Your task to perform on an android device: make emails show in primary in the gmail app Image 0: 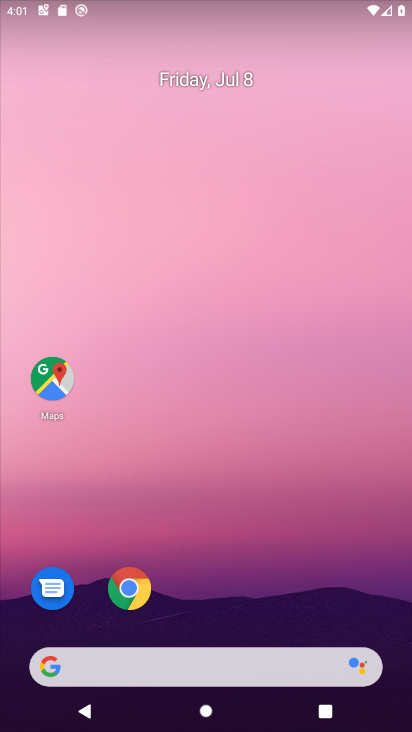
Step 0: drag from (230, 614) to (229, 1)
Your task to perform on an android device: make emails show in primary in the gmail app Image 1: 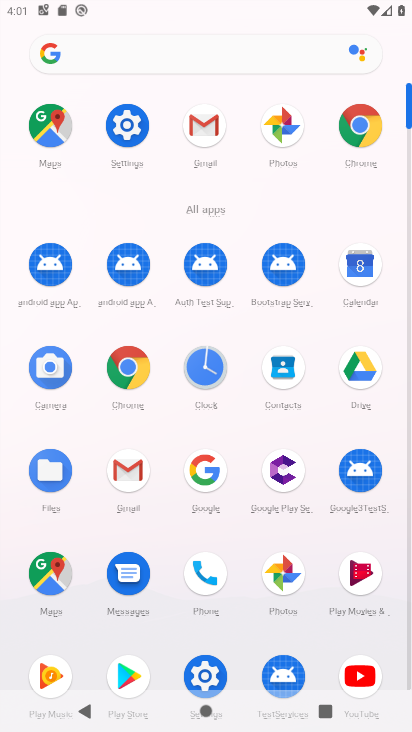
Step 1: click (130, 481)
Your task to perform on an android device: make emails show in primary in the gmail app Image 2: 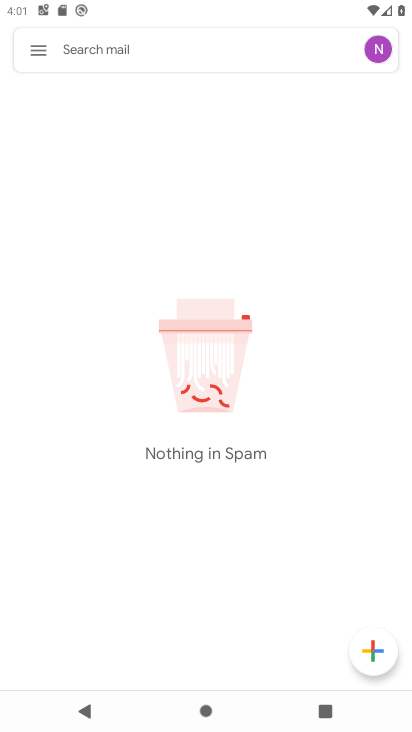
Step 2: click (42, 40)
Your task to perform on an android device: make emails show in primary in the gmail app Image 3: 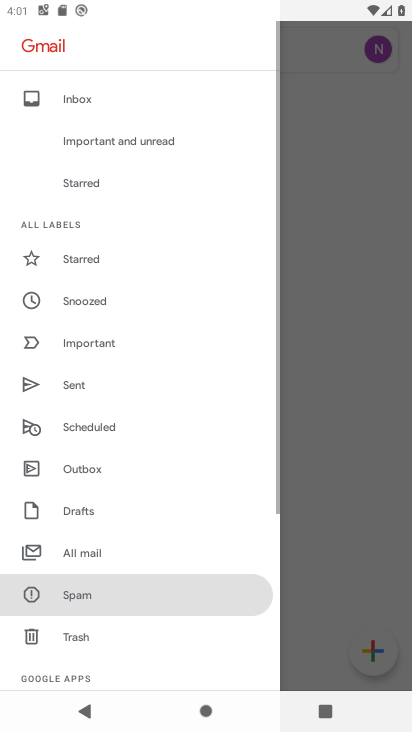
Step 3: drag from (121, 627) to (121, 143)
Your task to perform on an android device: make emails show in primary in the gmail app Image 4: 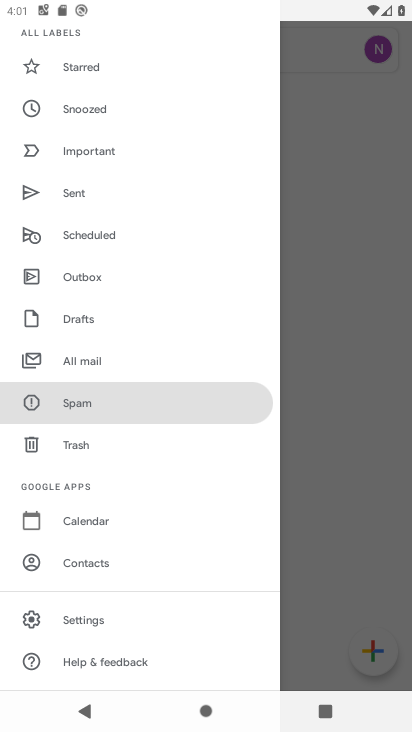
Step 4: click (74, 625)
Your task to perform on an android device: make emails show in primary in the gmail app Image 5: 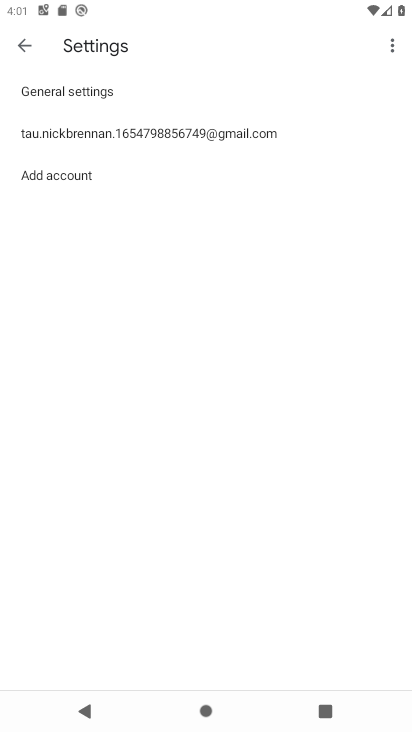
Step 5: click (90, 129)
Your task to perform on an android device: make emails show in primary in the gmail app Image 6: 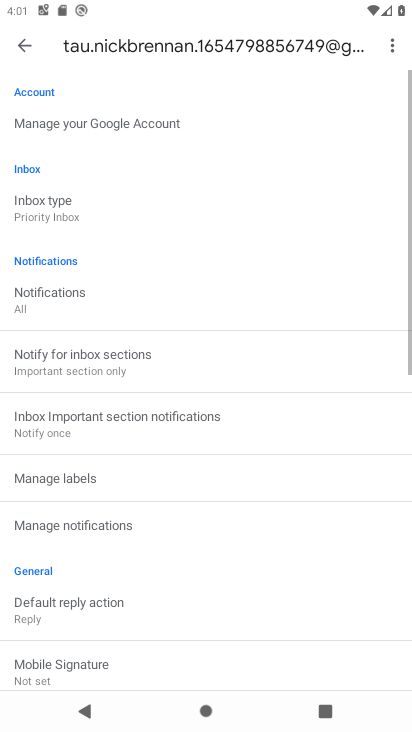
Step 6: click (62, 216)
Your task to perform on an android device: make emails show in primary in the gmail app Image 7: 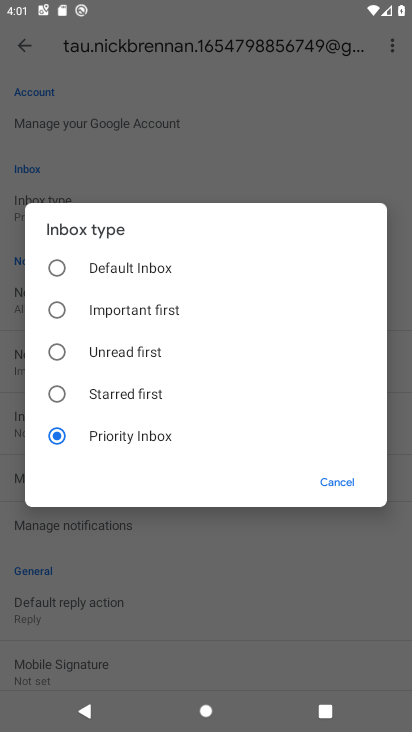
Step 7: click (111, 269)
Your task to perform on an android device: make emails show in primary in the gmail app Image 8: 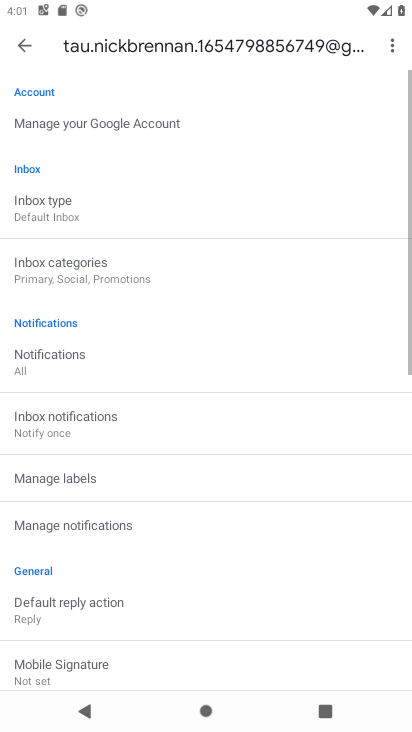
Step 8: click (110, 271)
Your task to perform on an android device: make emails show in primary in the gmail app Image 9: 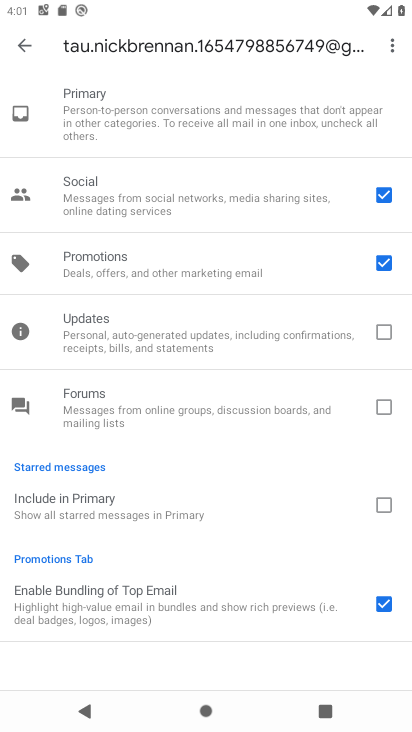
Step 9: click (379, 195)
Your task to perform on an android device: make emails show in primary in the gmail app Image 10: 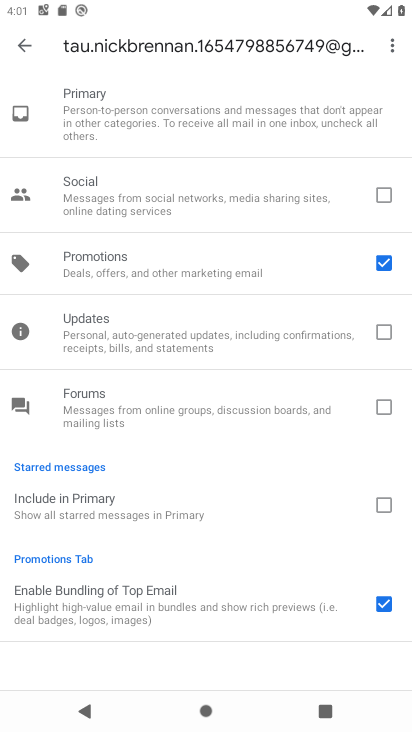
Step 10: click (383, 258)
Your task to perform on an android device: make emails show in primary in the gmail app Image 11: 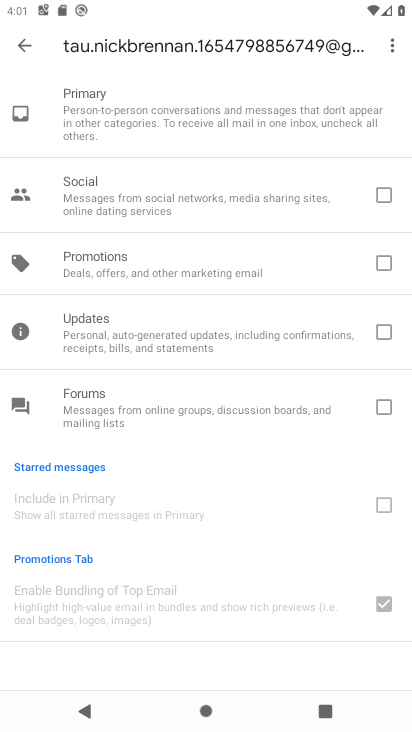
Step 11: task complete